Your task to perform on an android device: Is it going to rain tomorrow? Image 0: 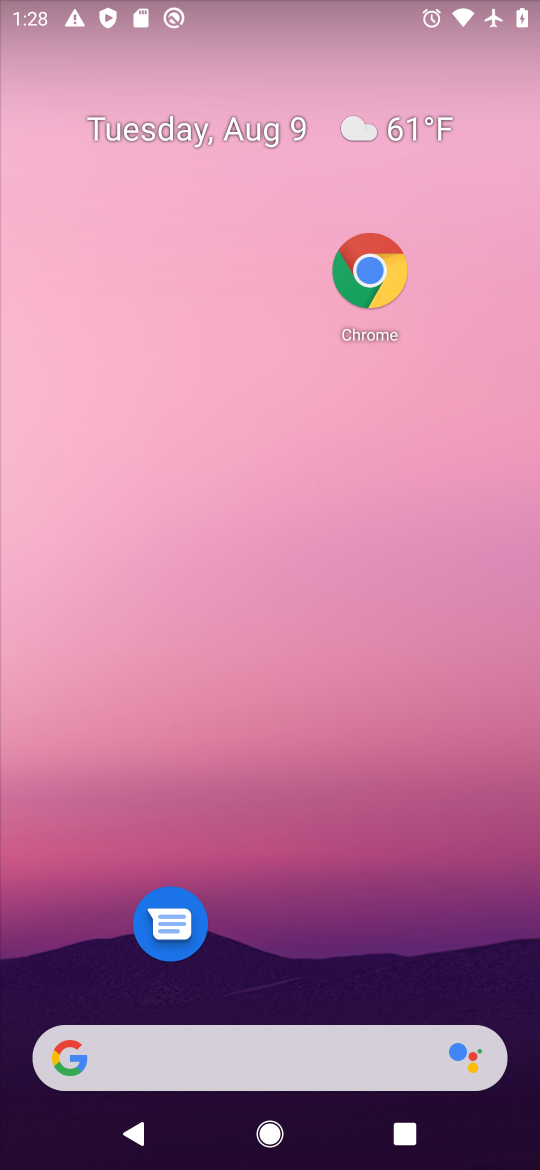
Step 0: drag from (411, 1005) to (314, 99)
Your task to perform on an android device: Is it going to rain tomorrow? Image 1: 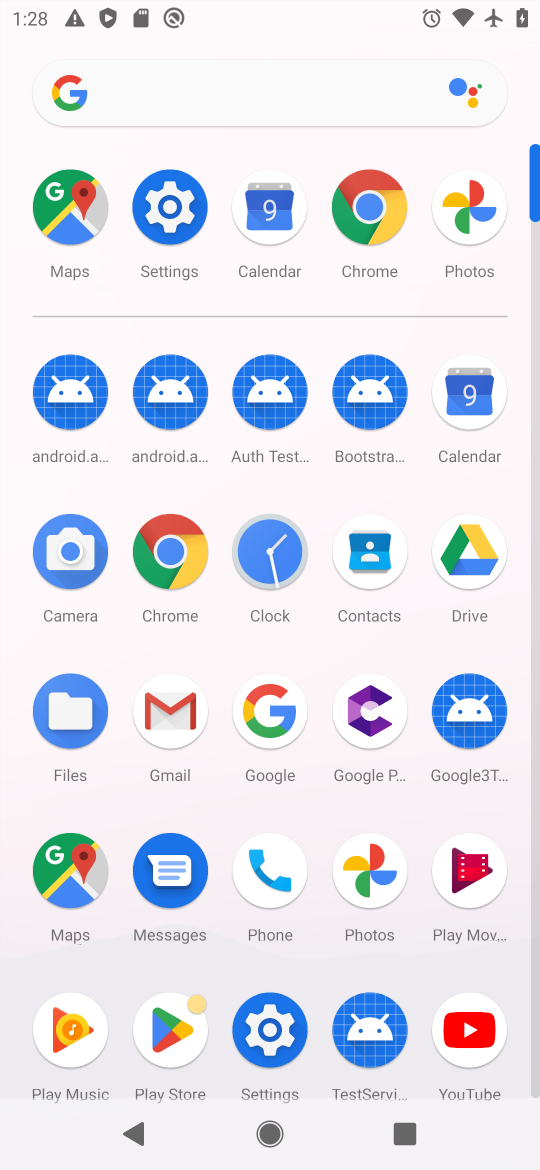
Step 1: click (170, 98)
Your task to perform on an android device: Is it going to rain tomorrow? Image 2: 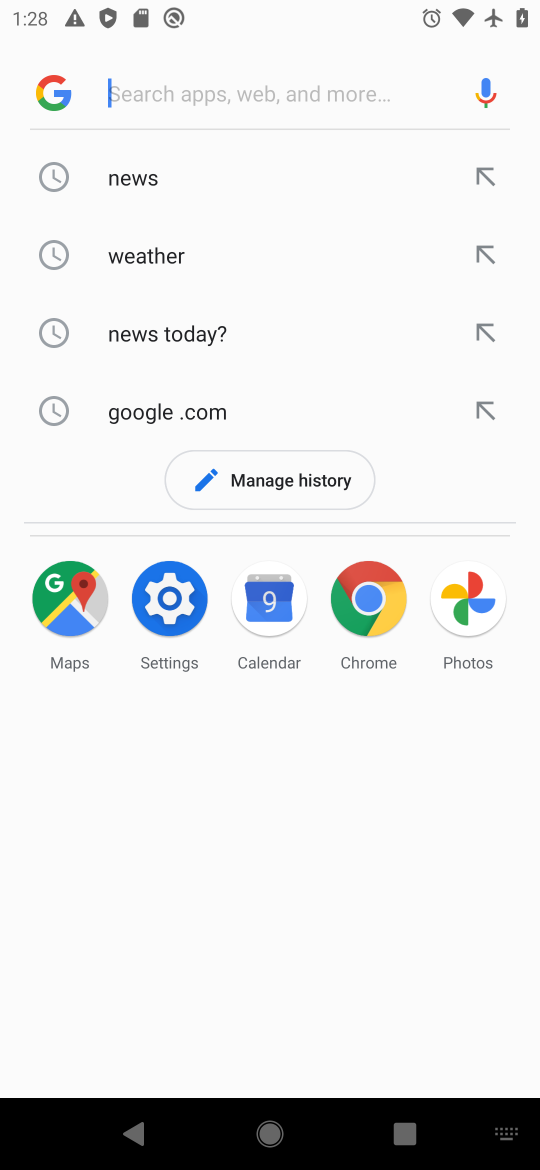
Step 2: click (176, 242)
Your task to perform on an android device: Is it going to rain tomorrow? Image 3: 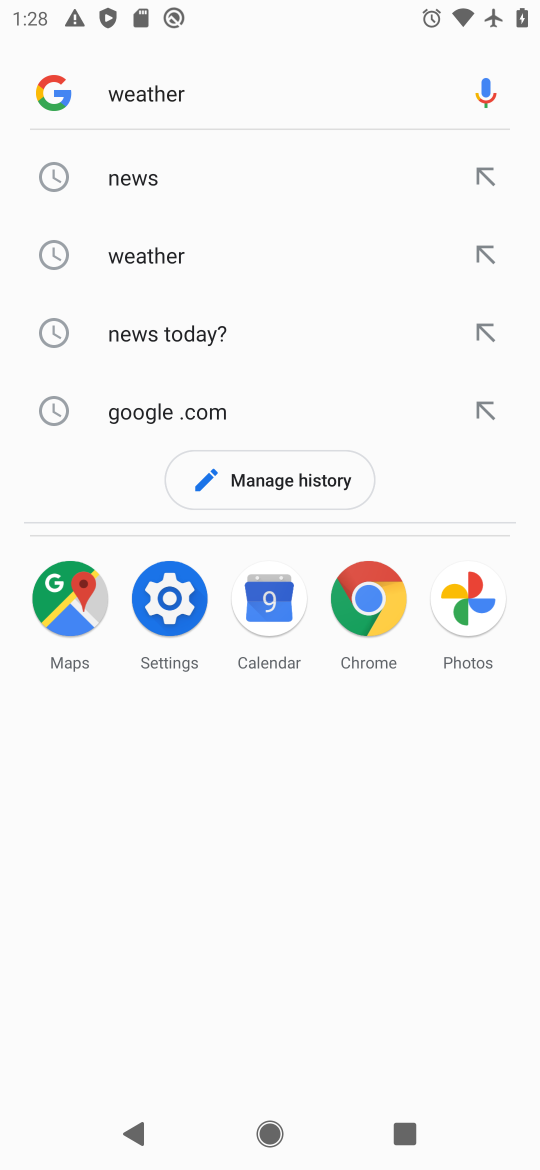
Step 3: task complete